Your task to perform on an android device: delete the emails in spam in the gmail app Image 0: 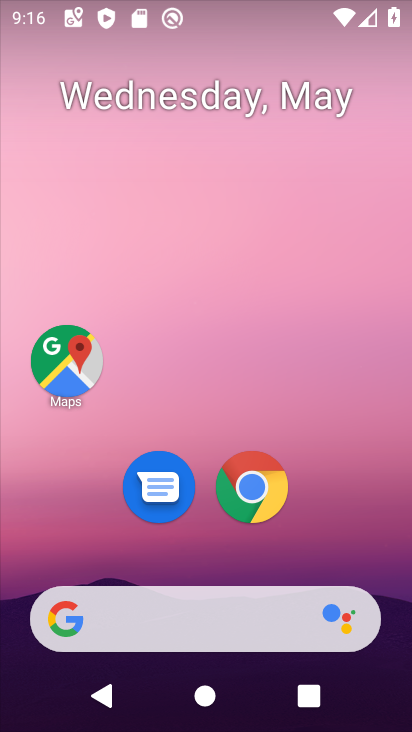
Step 0: drag from (313, 523) to (129, 181)
Your task to perform on an android device: delete the emails in spam in the gmail app Image 1: 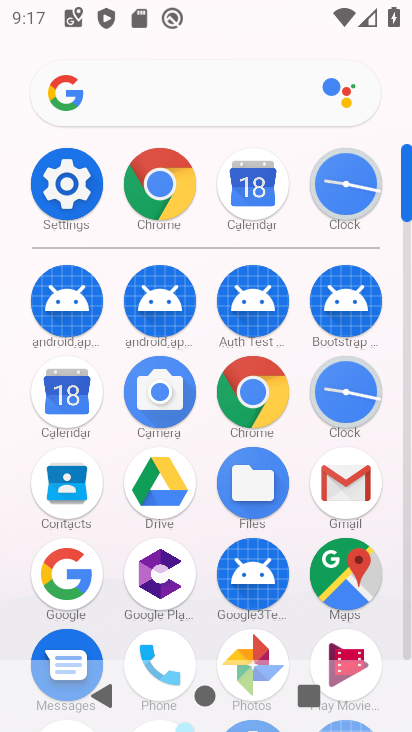
Step 1: click (348, 482)
Your task to perform on an android device: delete the emails in spam in the gmail app Image 2: 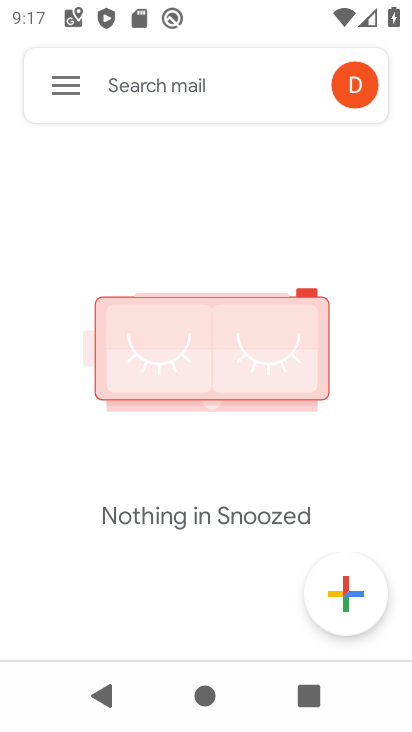
Step 2: click (62, 80)
Your task to perform on an android device: delete the emails in spam in the gmail app Image 3: 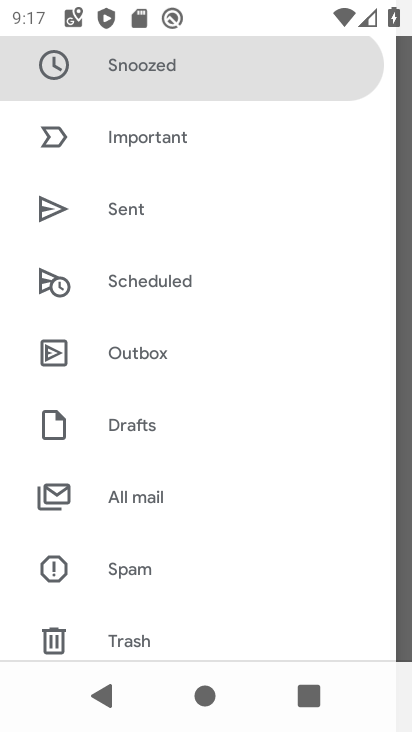
Step 3: click (127, 559)
Your task to perform on an android device: delete the emails in spam in the gmail app Image 4: 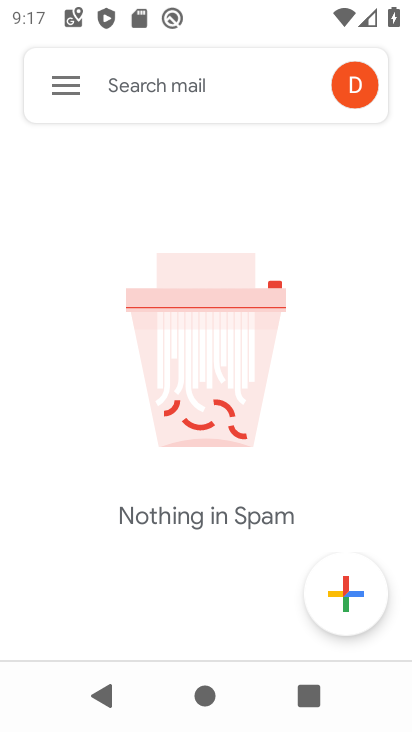
Step 4: task complete